Your task to perform on an android device: Open eBay Image 0: 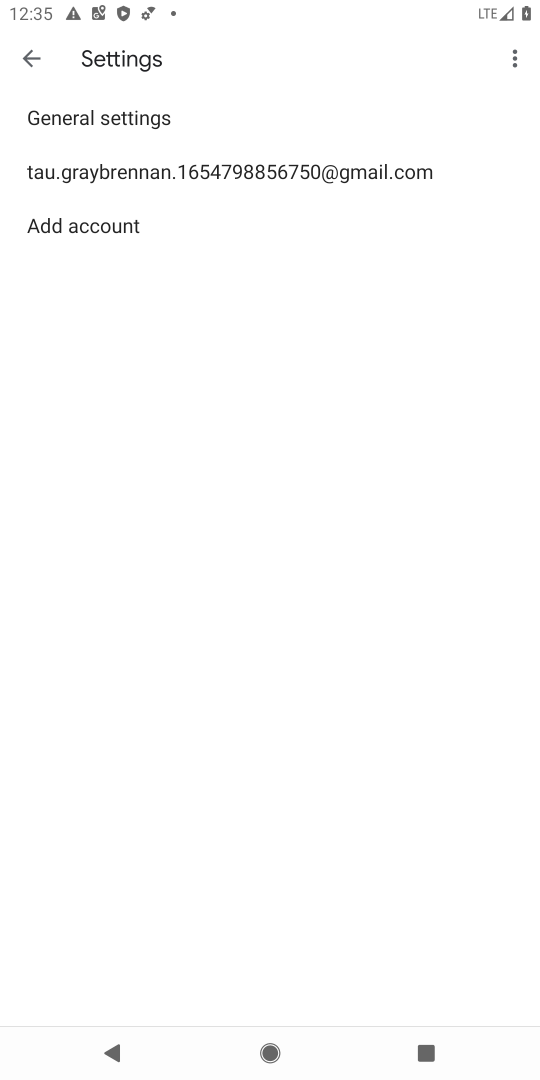
Step 0: press back button
Your task to perform on an android device: Open eBay Image 1: 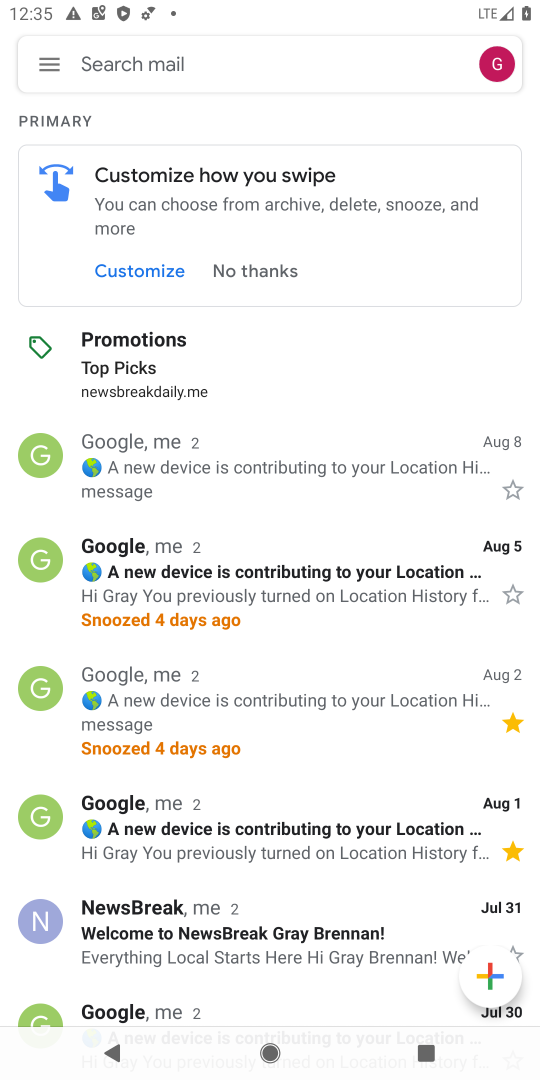
Step 1: press back button
Your task to perform on an android device: Open eBay Image 2: 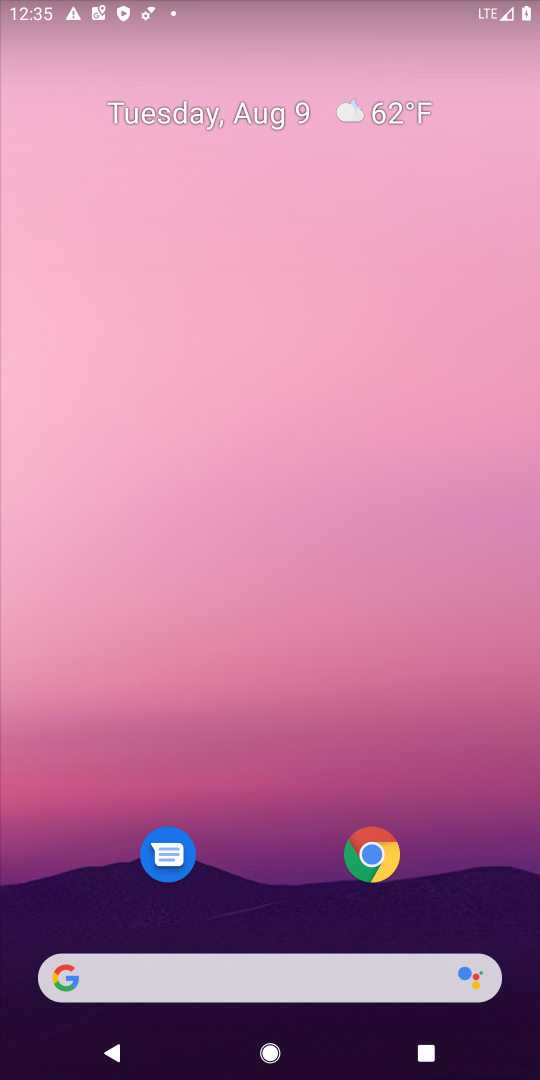
Step 2: click (367, 853)
Your task to perform on an android device: Open eBay Image 3: 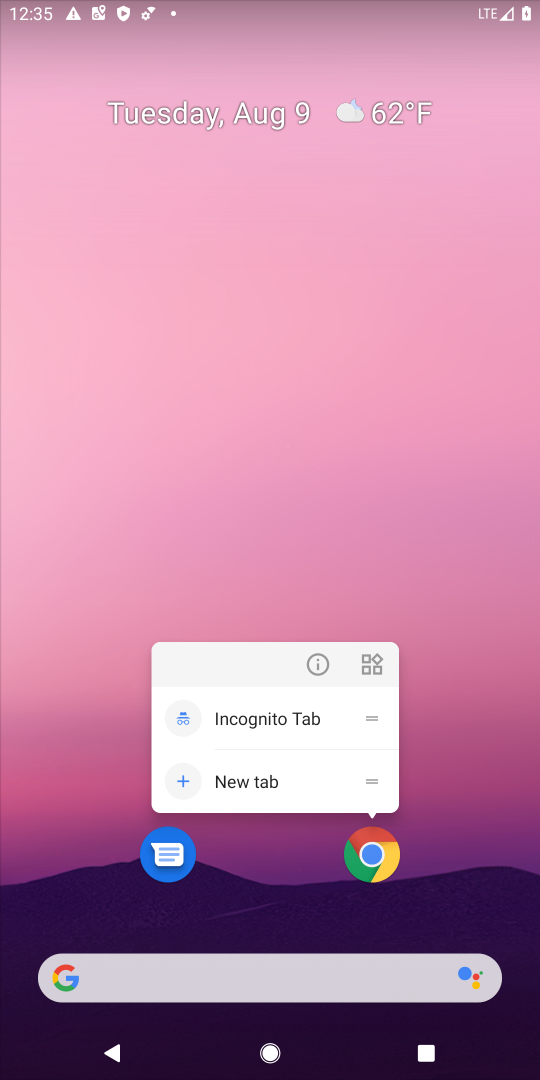
Step 3: click (369, 853)
Your task to perform on an android device: Open eBay Image 4: 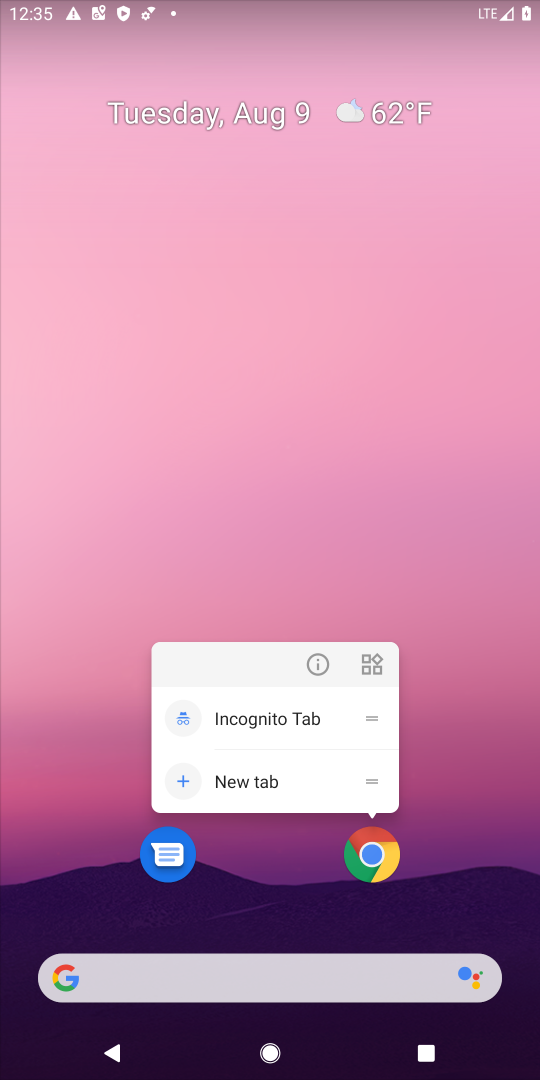
Step 4: click (369, 853)
Your task to perform on an android device: Open eBay Image 5: 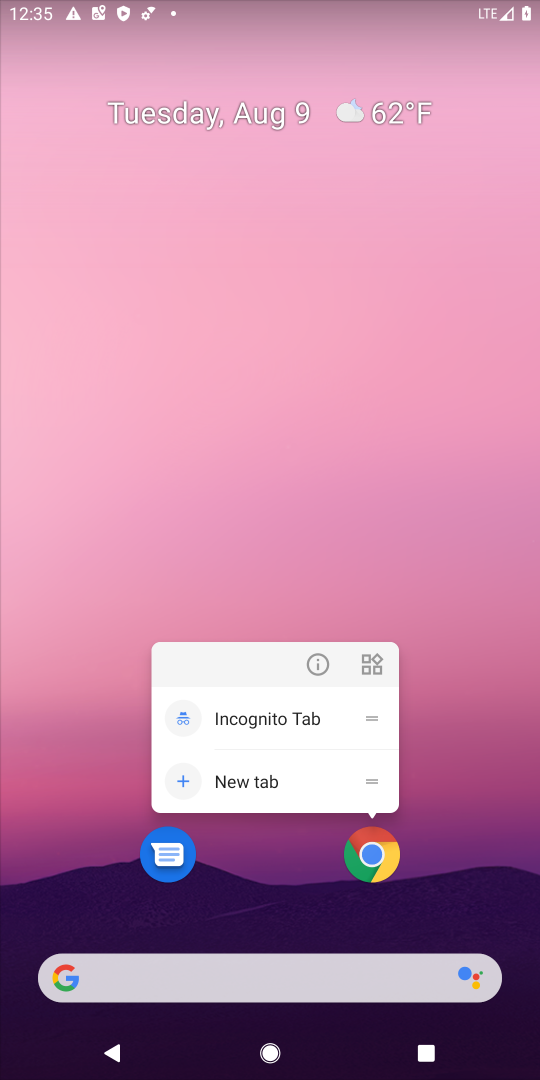
Step 5: click (377, 853)
Your task to perform on an android device: Open eBay Image 6: 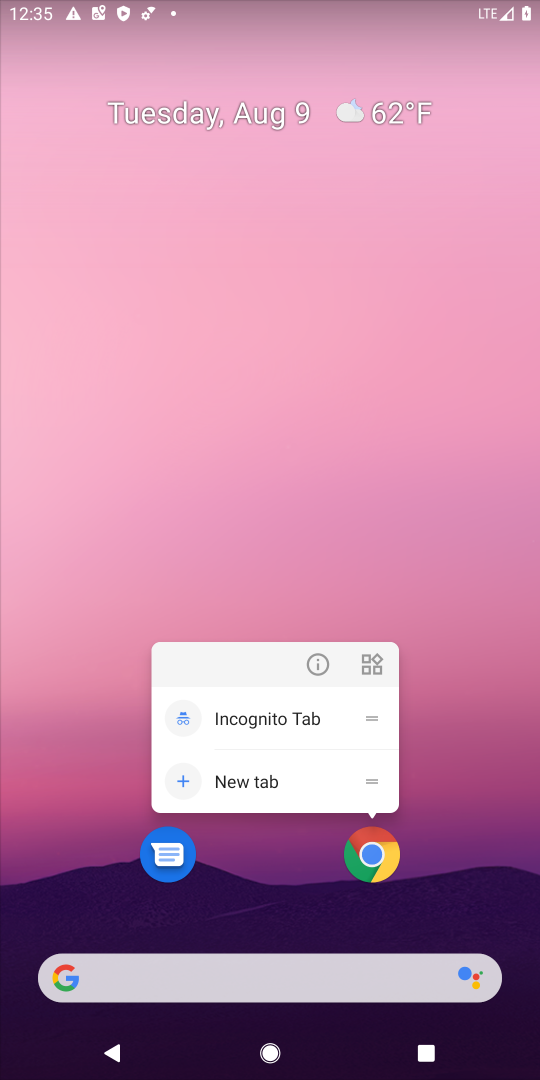
Step 6: click (373, 864)
Your task to perform on an android device: Open eBay Image 7: 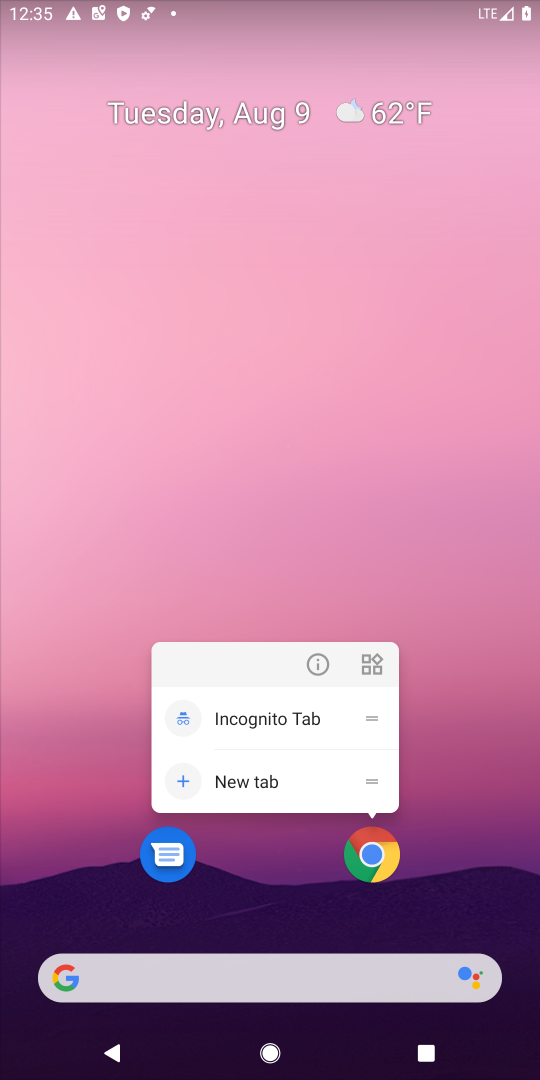
Step 7: click (370, 849)
Your task to perform on an android device: Open eBay Image 8: 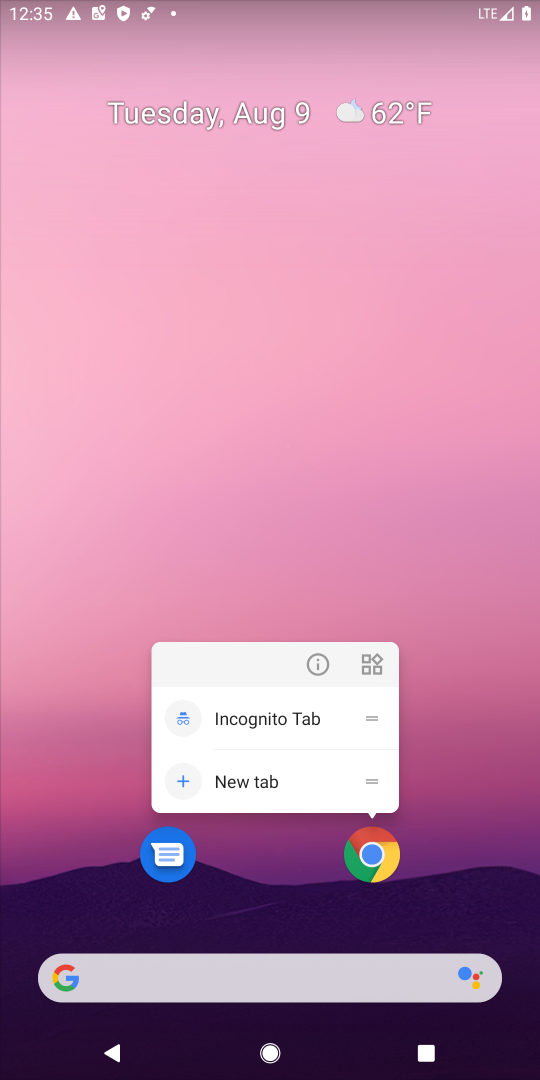
Step 8: click (384, 833)
Your task to perform on an android device: Open eBay Image 9: 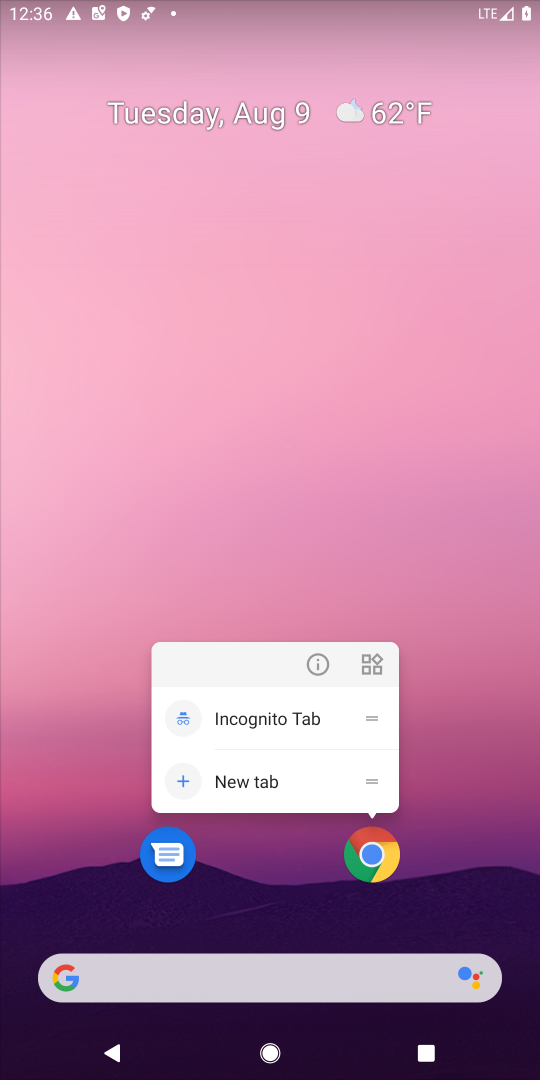
Step 9: click (392, 863)
Your task to perform on an android device: Open eBay Image 10: 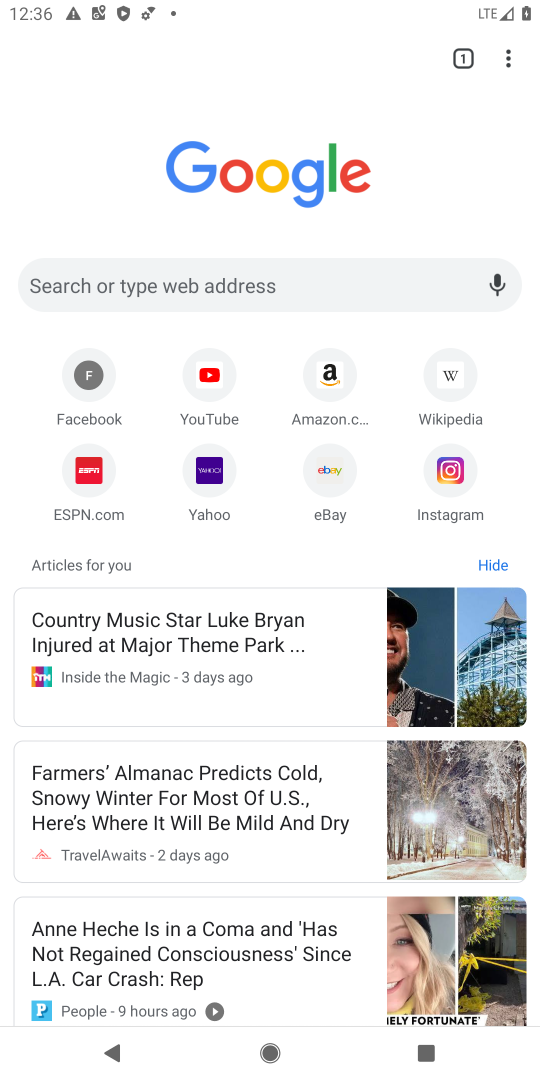
Step 10: click (340, 482)
Your task to perform on an android device: Open eBay Image 11: 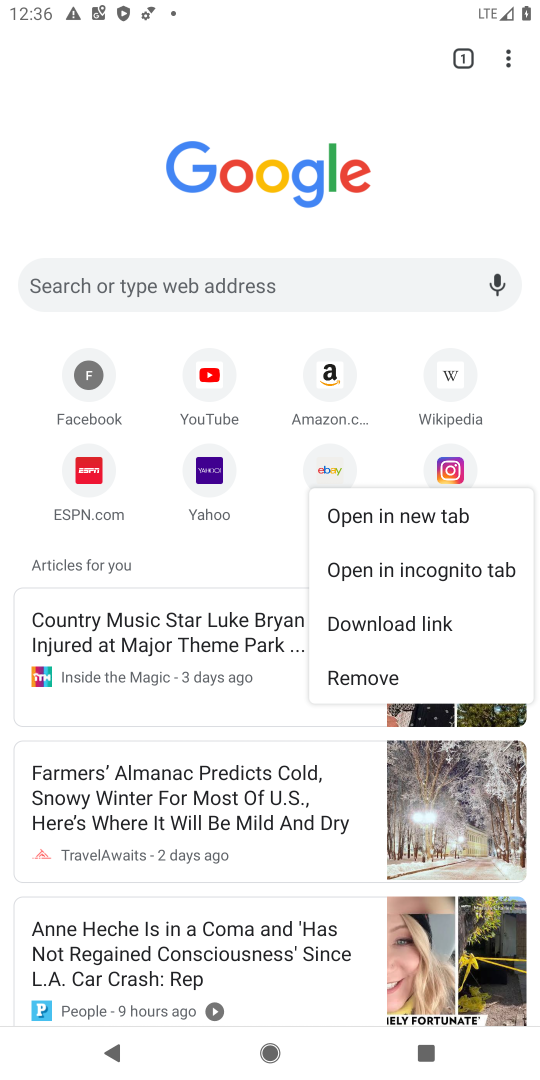
Step 11: click (321, 466)
Your task to perform on an android device: Open eBay Image 12: 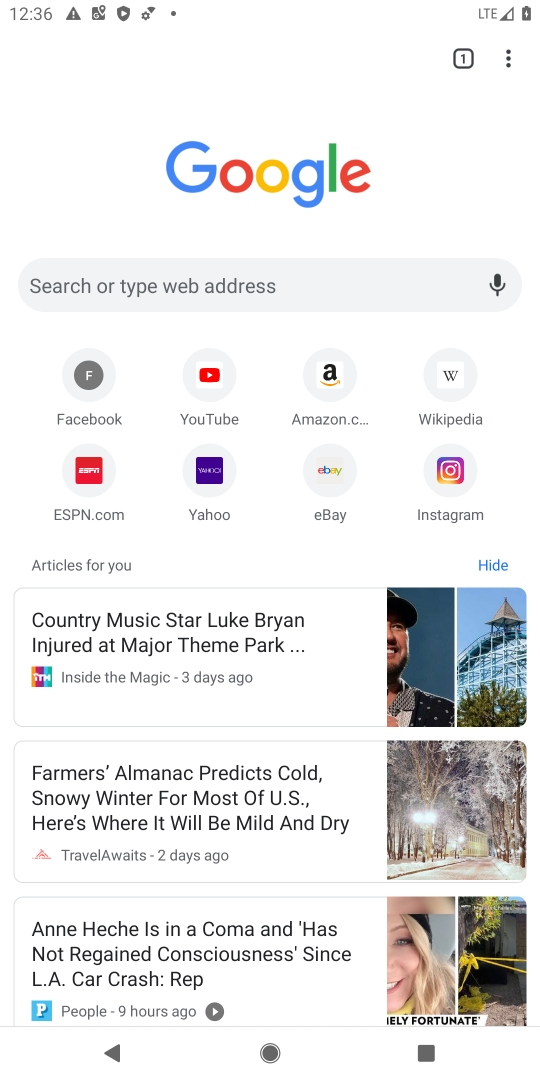
Step 12: click (319, 467)
Your task to perform on an android device: Open eBay Image 13: 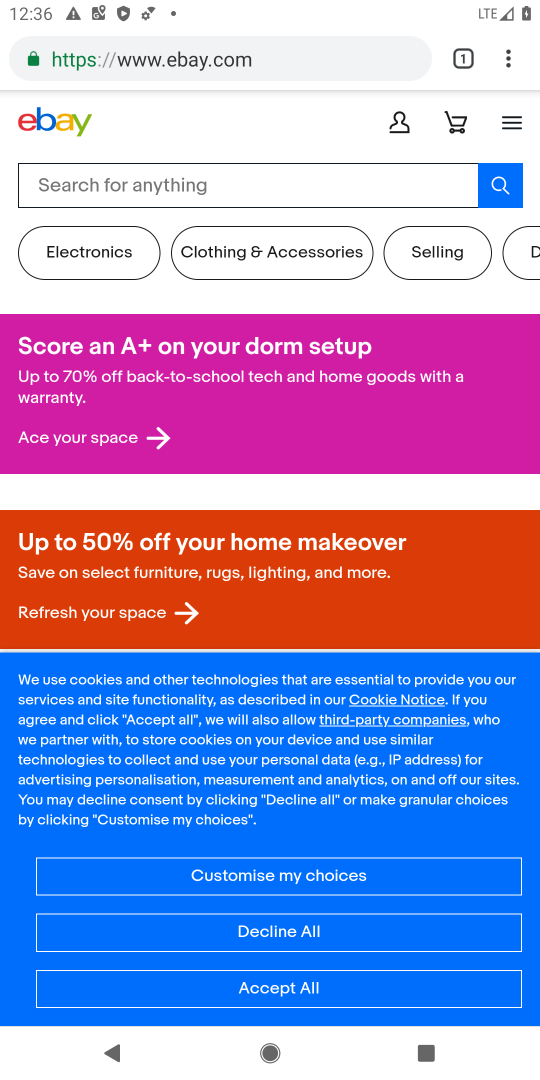
Step 13: task complete